Your task to perform on an android device: What's the news? Image 0: 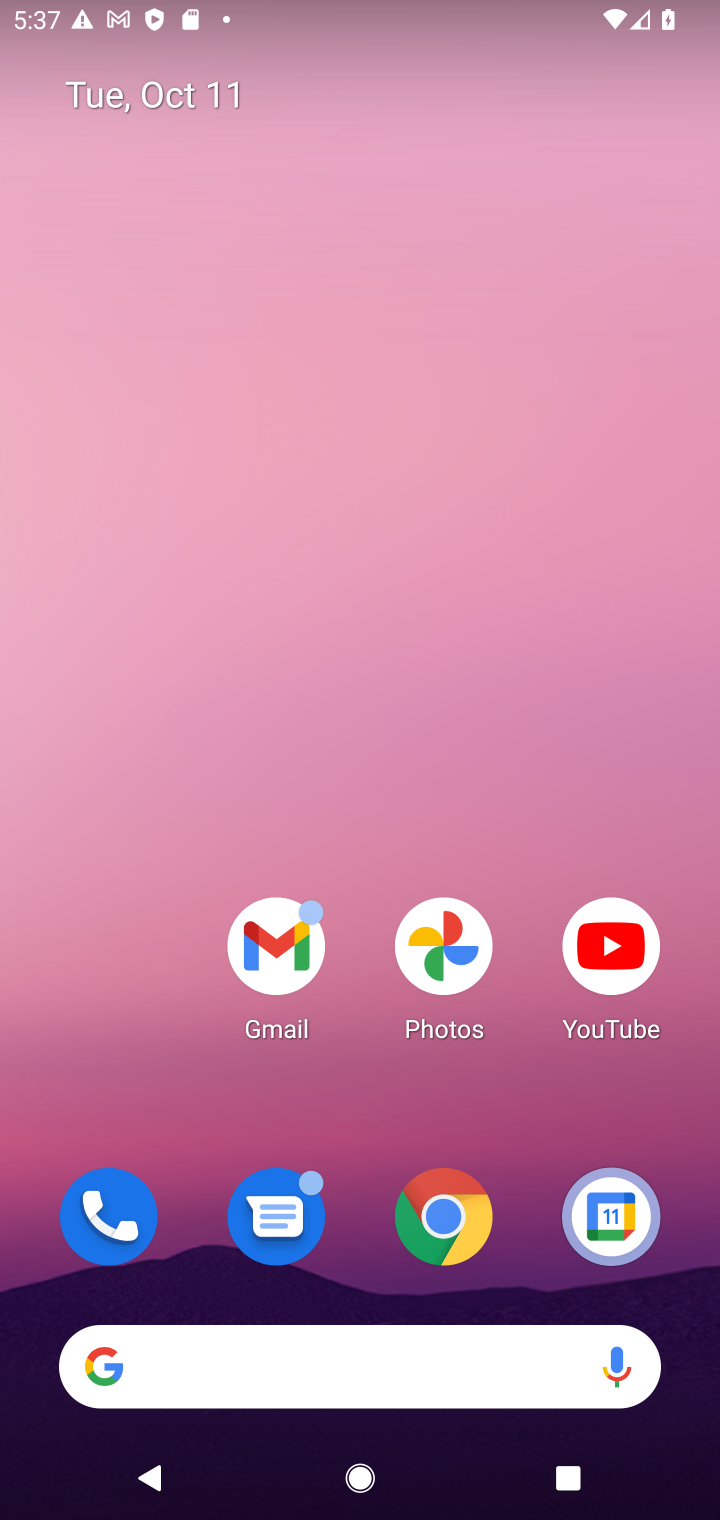
Step 0: click (441, 1225)
Your task to perform on an android device: What's the news? Image 1: 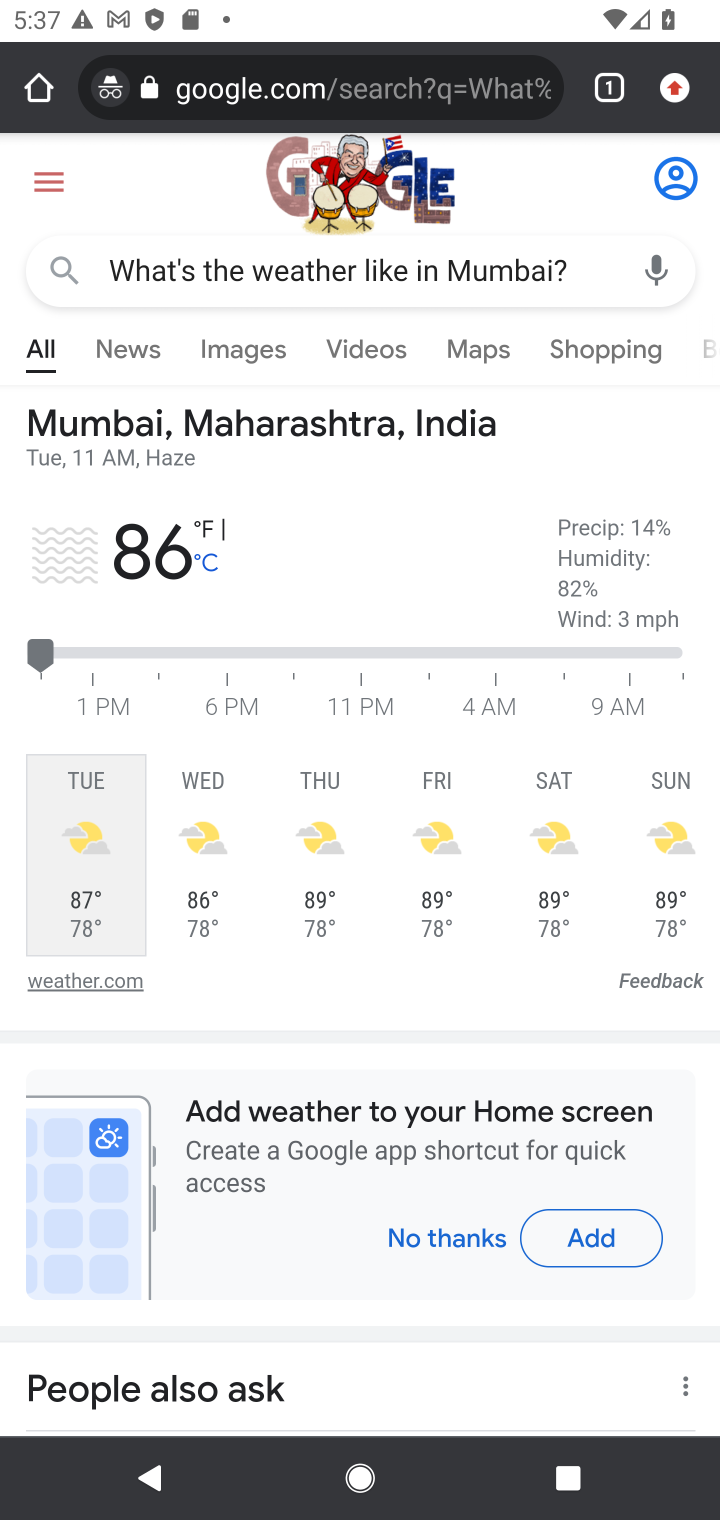
Step 1: click (319, 85)
Your task to perform on an android device: What's the news? Image 2: 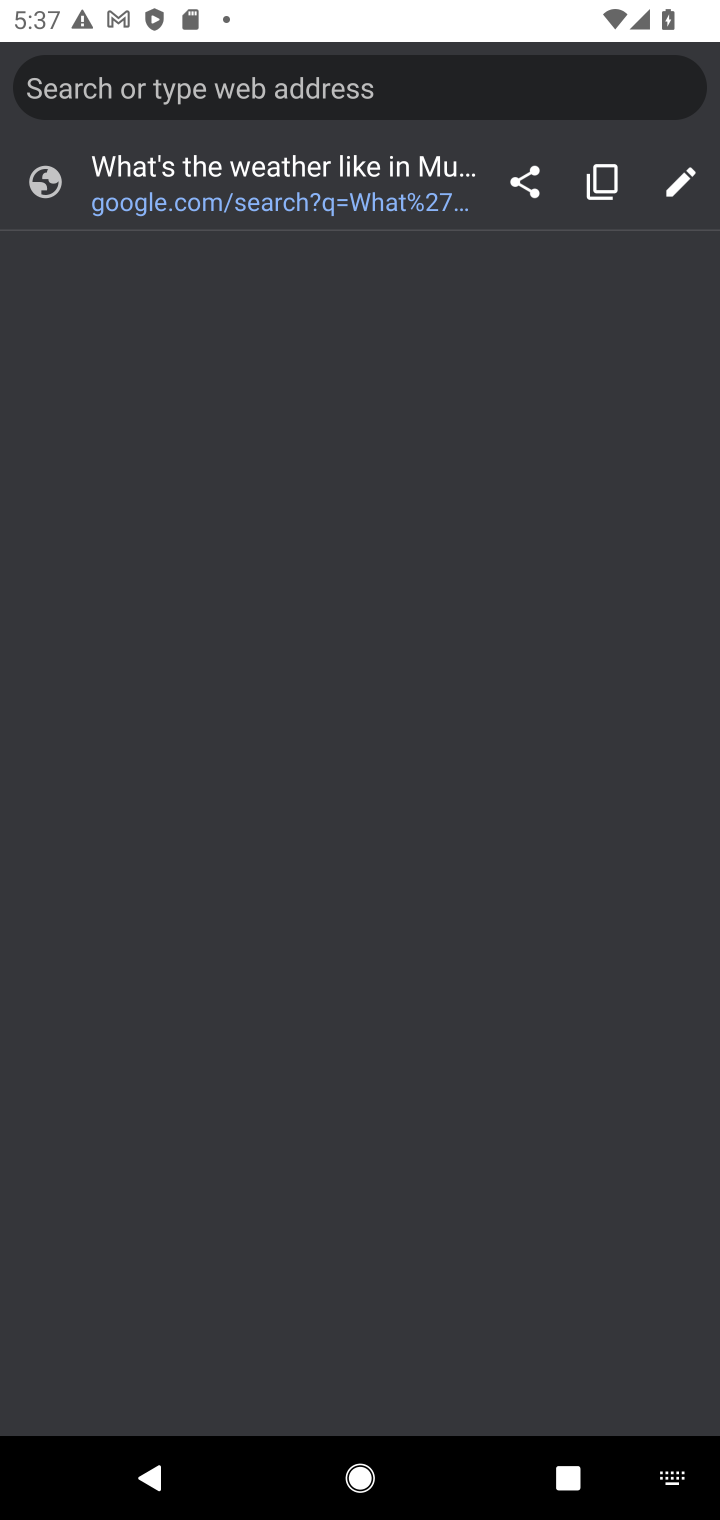
Step 2: type "What's the news?"
Your task to perform on an android device: What's the news? Image 3: 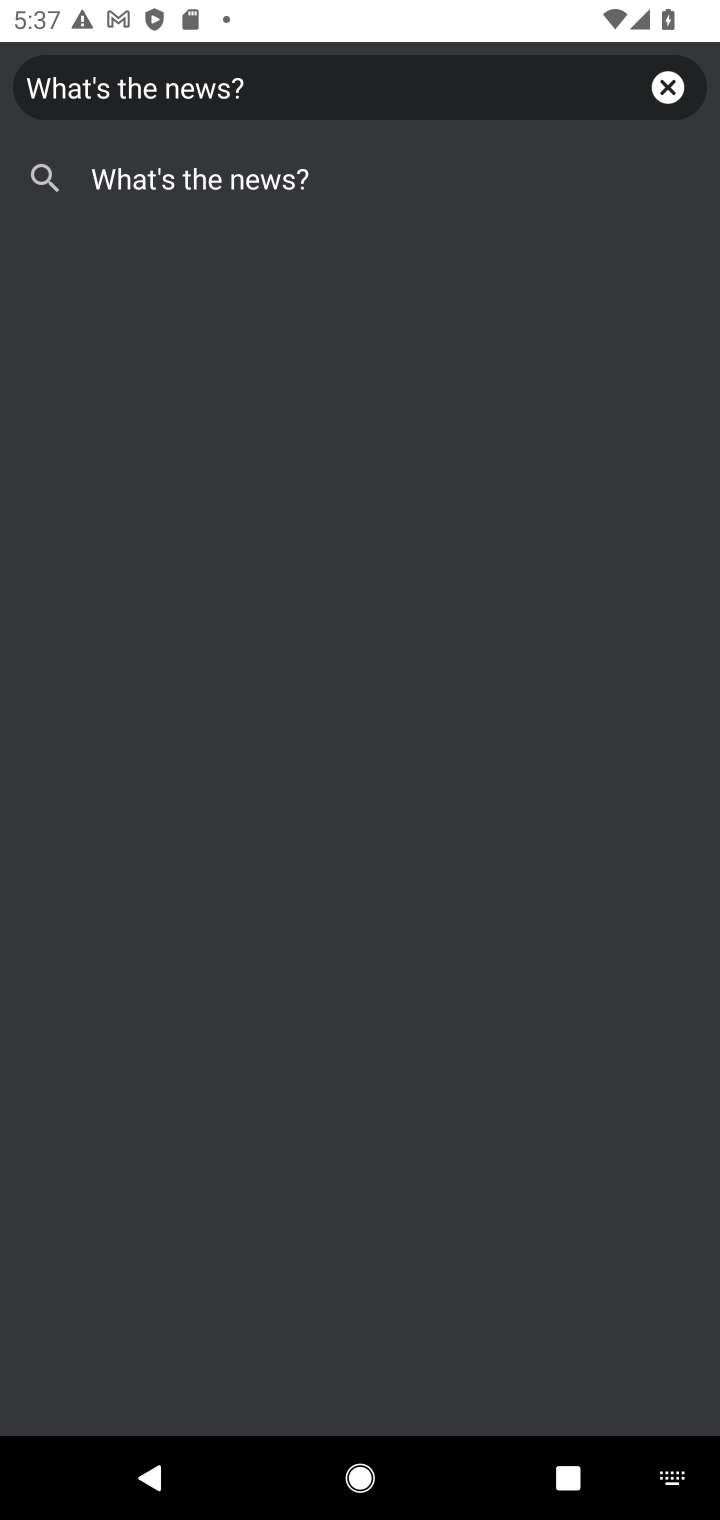
Step 3: click (238, 175)
Your task to perform on an android device: What's the news? Image 4: 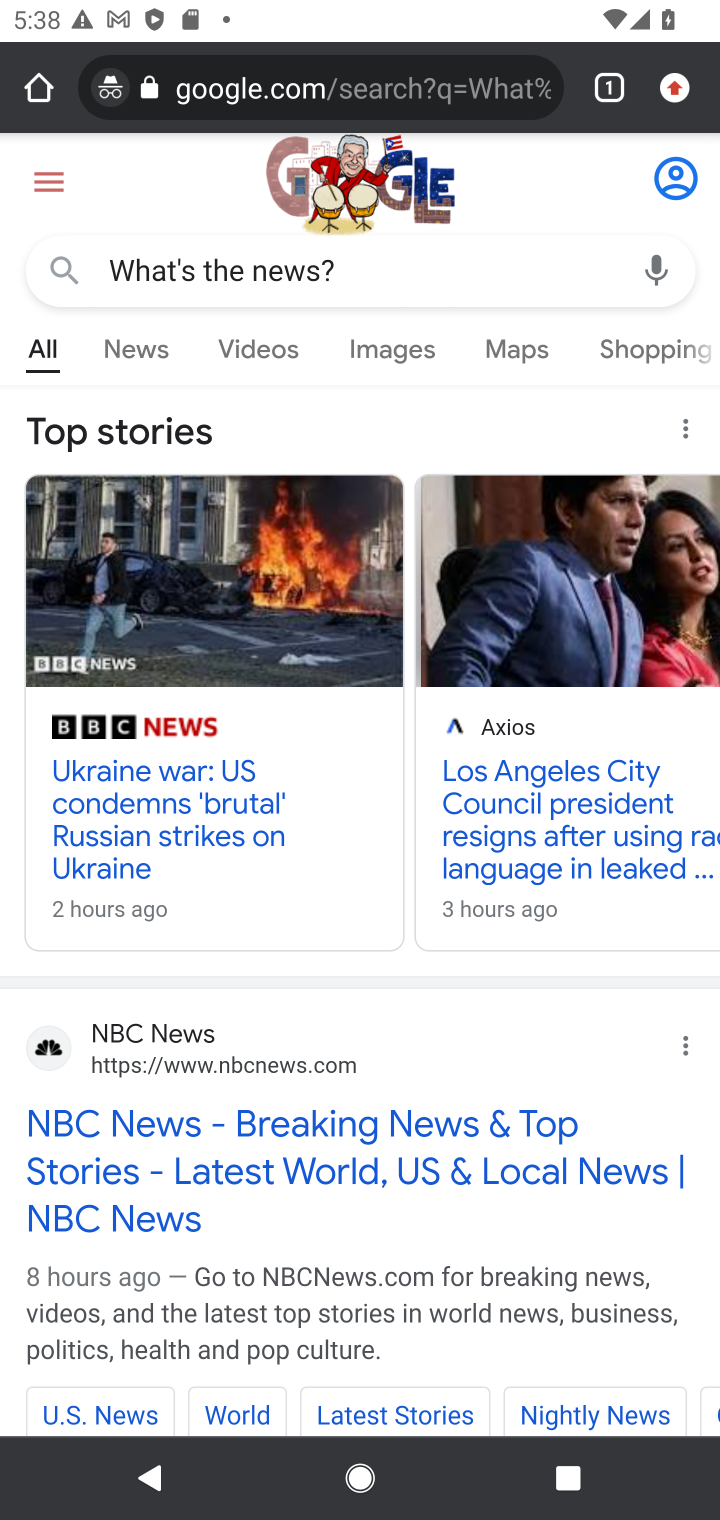
Step 4: click (170, 858)
Your task to perform on an android device: What's the news? Image 5: 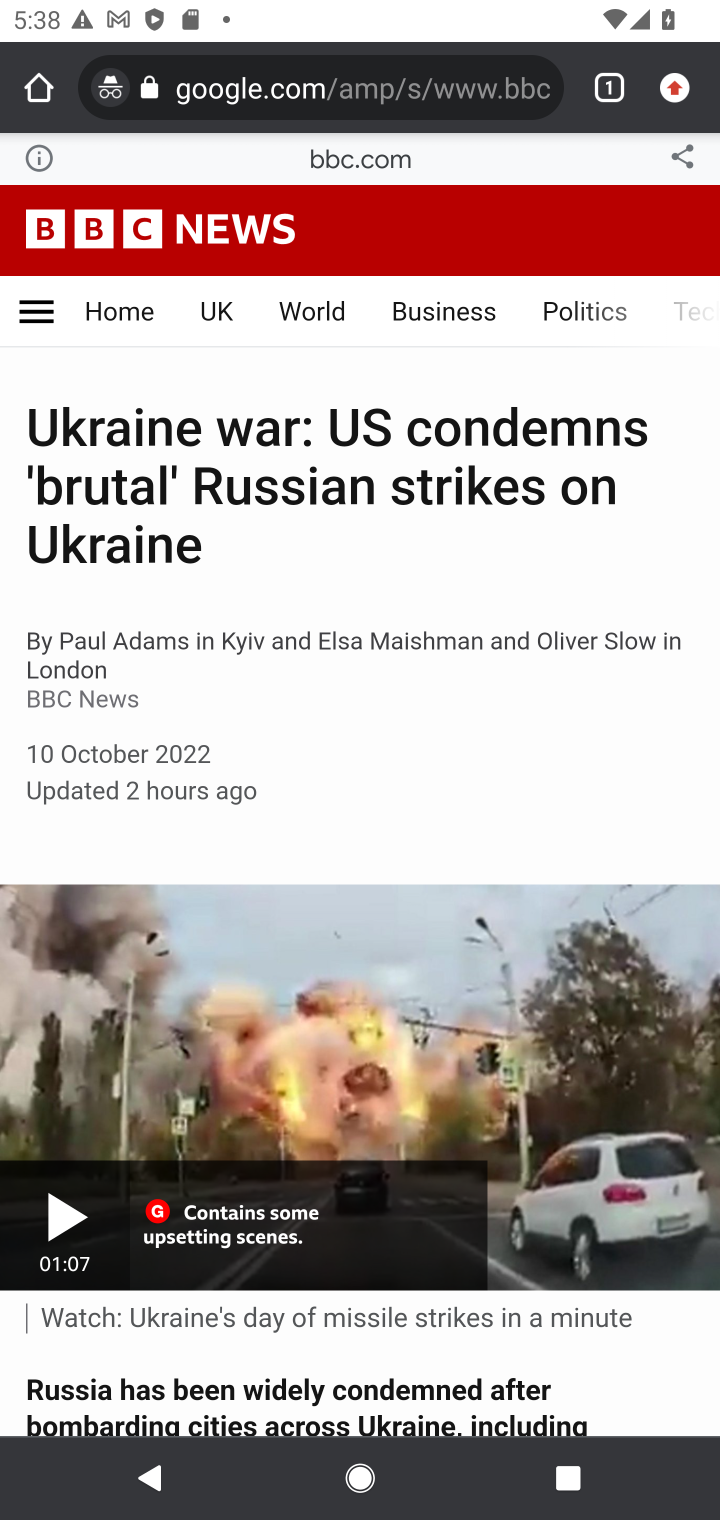
Step 5: task complete